Your task to perform on an android device: set default search engine in the chrome app Image 0: 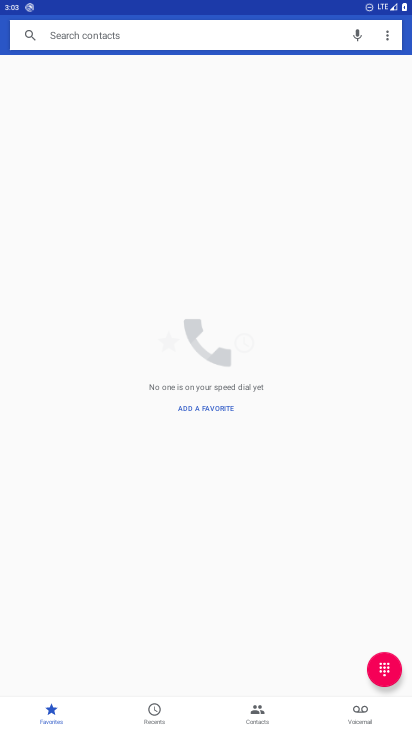
Step 0: press home button
Your task to perform on an android device: set default search engine in the chrome app Image 1: 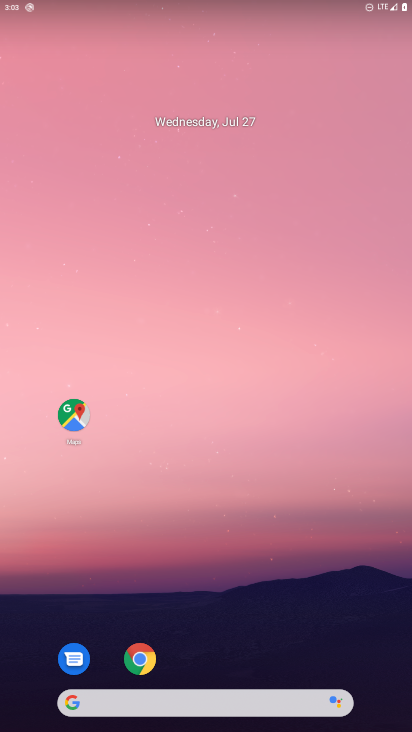
Step 1: click (142, 660)
Your task to perform on an android device: set default search engine in the chrome app Image 2: 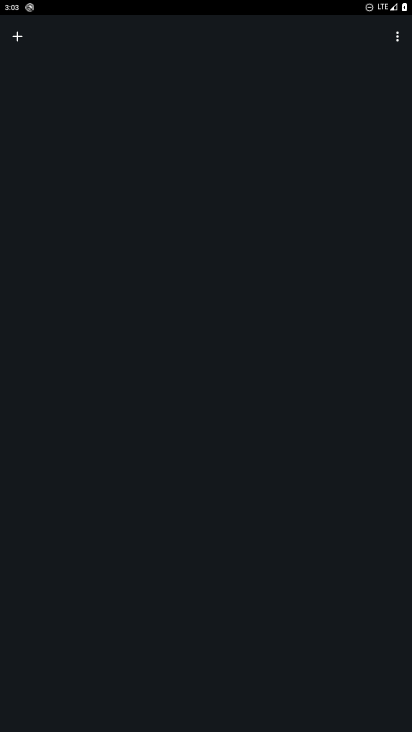
Step 2: click (394, 38)
Your task to perform on an android device: set default search engine in the chrome app Image 3: 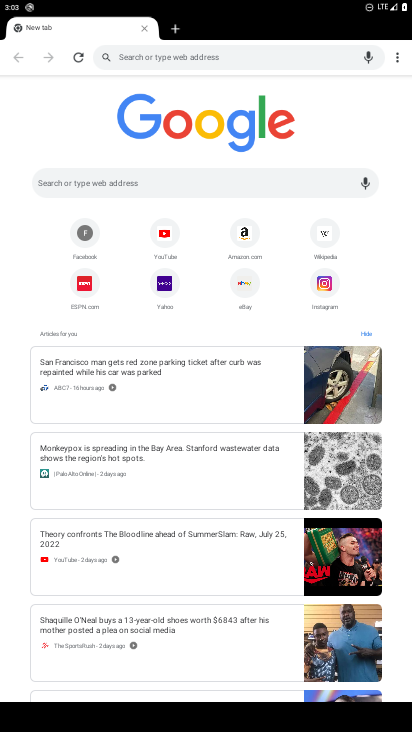
Step 3: click (400, 51)
Your task to perform on an android device: set default search engine in the chrome app Image 4: 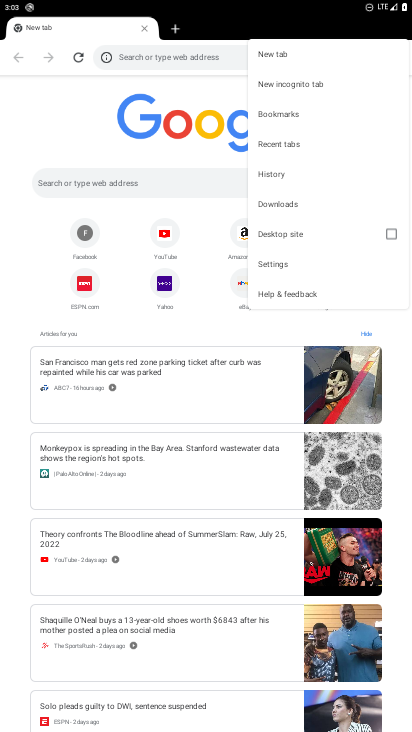
Step 4: click (299, 256)
Your task to perform on an android device: set default search engine in the chrome app Image 5: 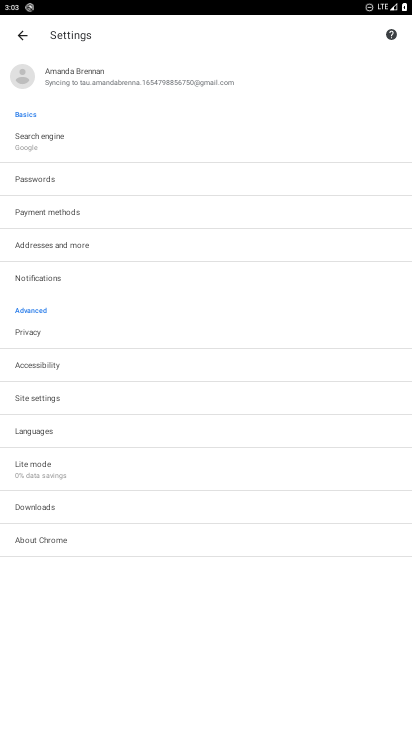
Step 5: click (87, 141)
Your task to perform on an android device: set default search engine in the chrome app Image 6: 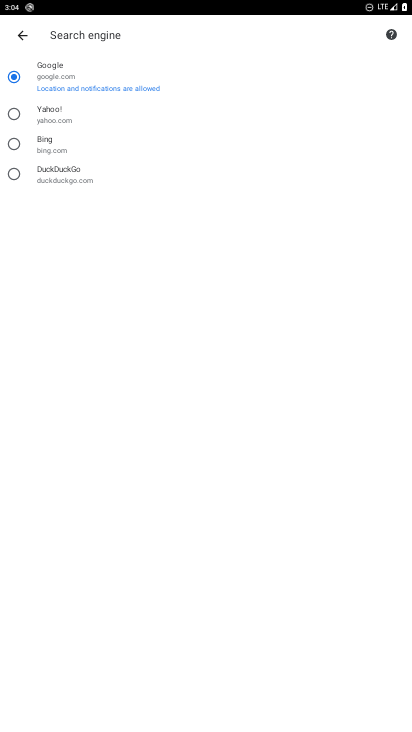
Step 6: click (10, 108)
Your task to perform on an android device: set default search engine in the chrome app Image 7: 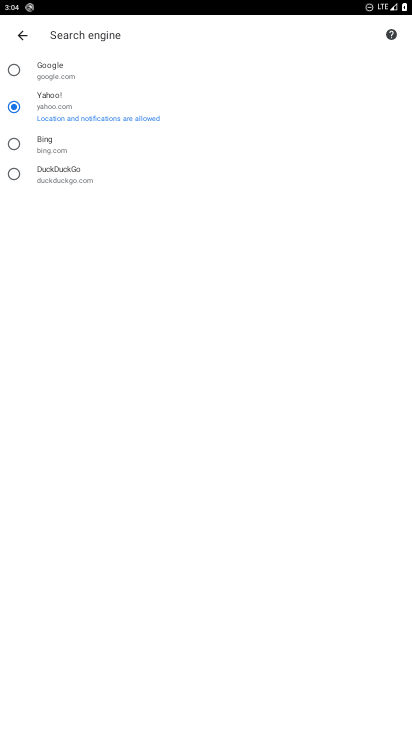
Step 7: click (11, 64)
Your task to perform on an android device: set default search engine in the chrome app Image 8: 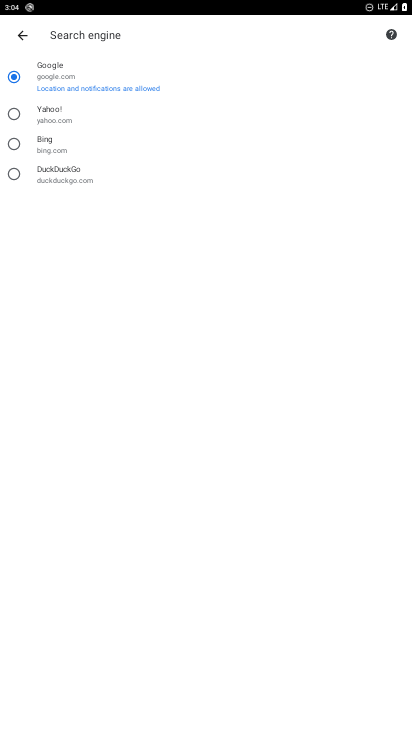
Step 8: click (153, 313)
Your task to perform on an android device: set default search engine in the chrome app Image 9: 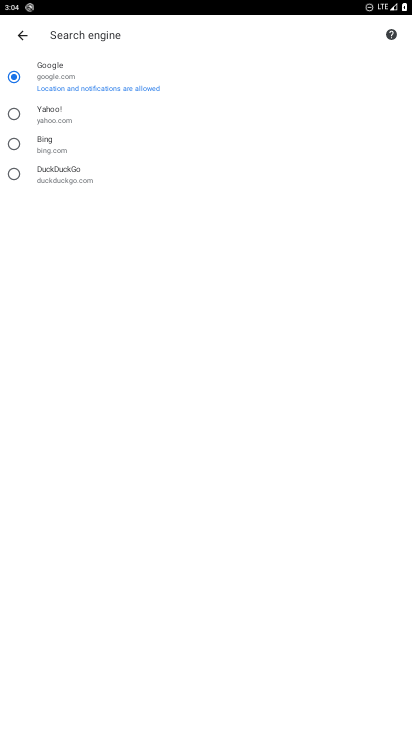
Step 9: click (15, 172)
Your task to perform on an android device: set default search engine in the chrome app Image 10: 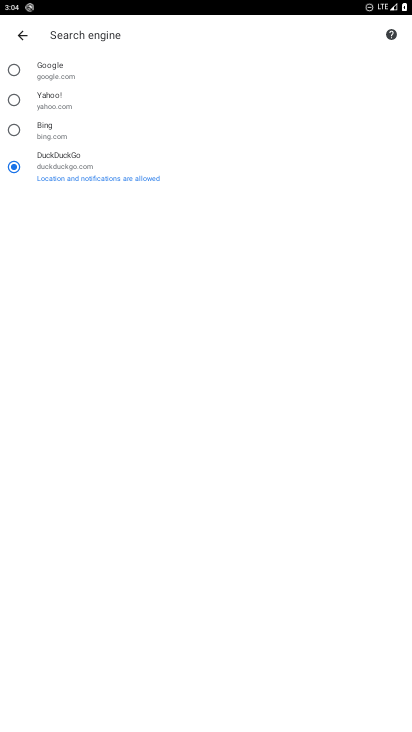
Step 10: click (12, 65)
Your task to perform on an android device: set default search engine in the chrome app Image 11: 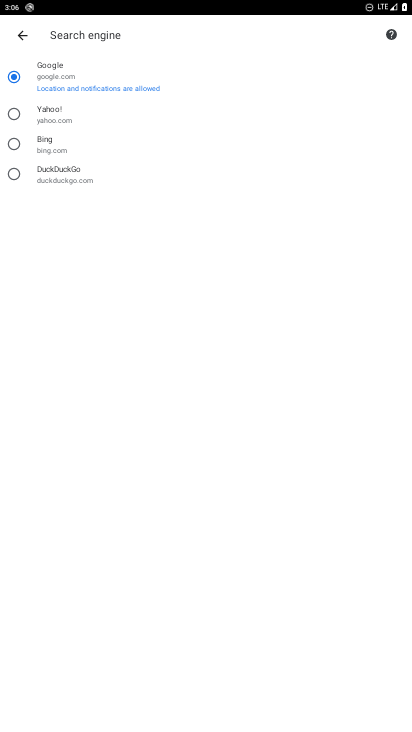
Step 11: click (73, 73)
Your task to perform on an android device: set default search engine in the chrome app Image 12: 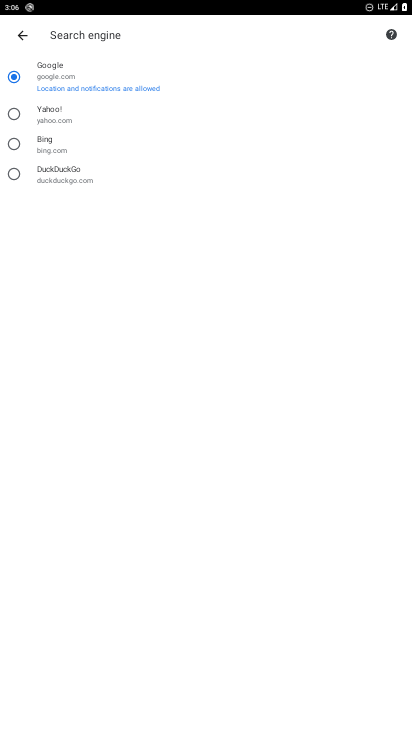
Step 12: click (92, 88)
Your task to perform on an android device: set default search engine in the chrome app Image 13: 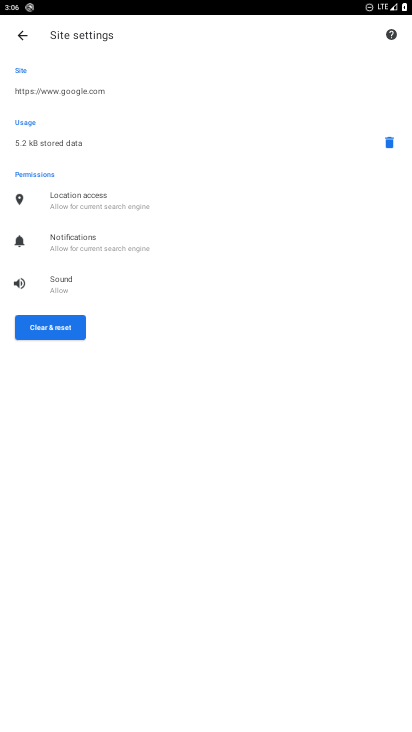
Step 13: click (98, 78)
Your task to perform on an android device: set default search engine in the chrome app Image 14: 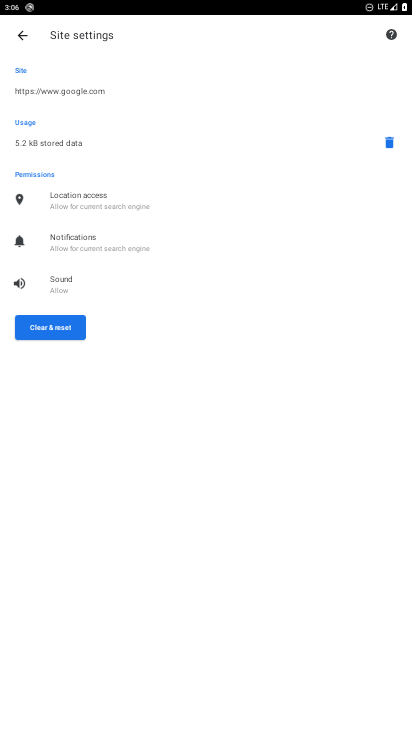
Step 14: click (19, 23)
Your task to perform on an android device: set default search engine in the chrome app Image 15: 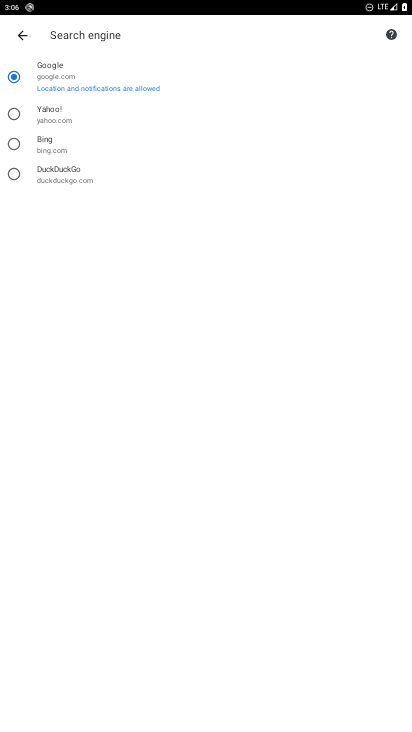
Step 15: task complete